Your task to perform on an android device: remove spam from my inbox in the gmail app Image 0: 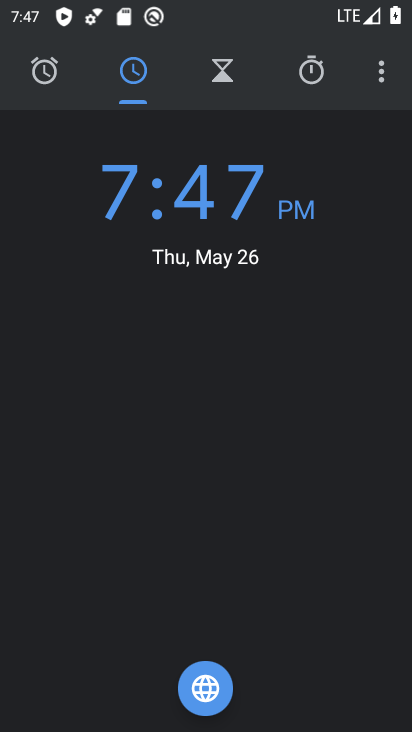
Step 0: press back button
Your task to perform on an android device: remove spam from my inbox in the gmail app Image 1: 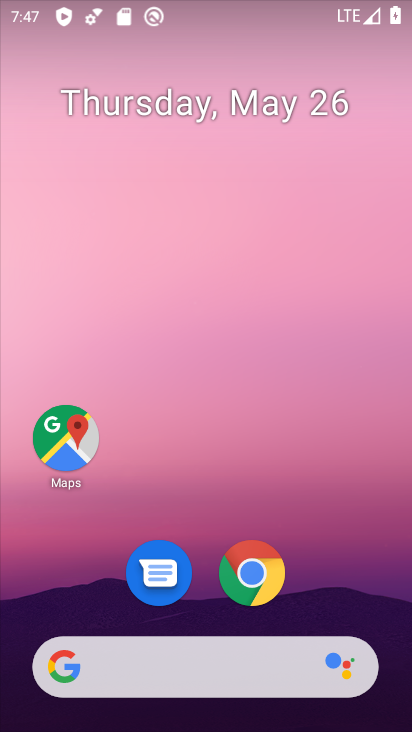
Step 1: drag from (342, 554) to (252, 27)
Your task to perform on an android device: remove spam from my inbox in the gmail app Image 2: 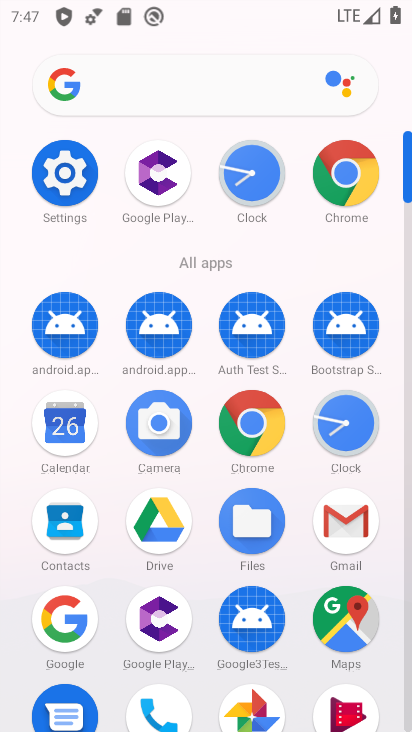
Step 2: drag from (18, 609) to (10, 294)
Your task to perform on an android device: remove spam from my inbox in the gmail app Image 3: 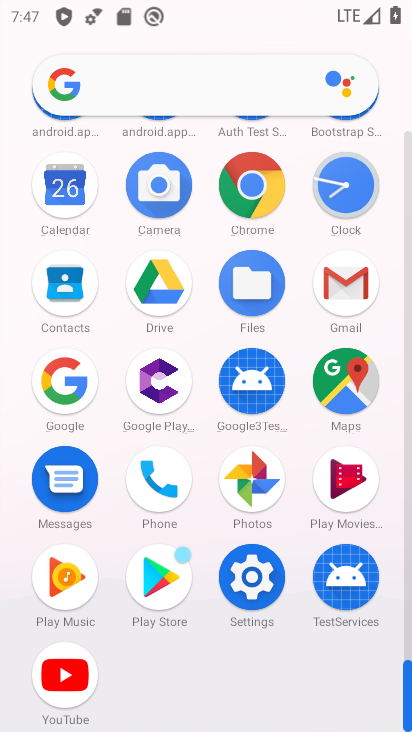
Step 3: click (344, 282)
Your task to perform on an android device: remove spam from my inbox in the gmail app Image 4: 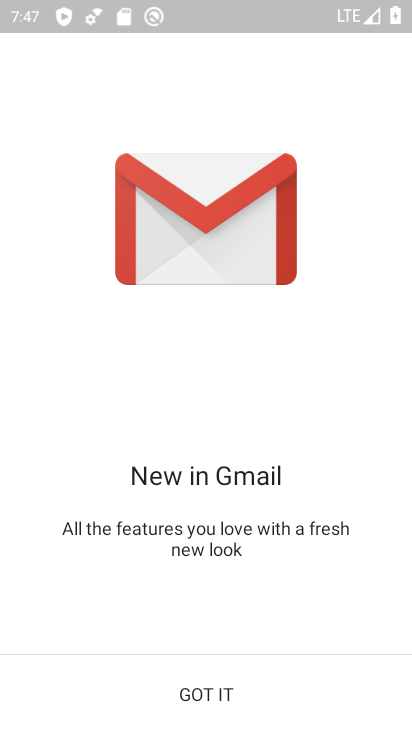
Step 4: click (200, 683)
Your task to perform on an android device: remove spam from my inbox in the gmail app Image 5: 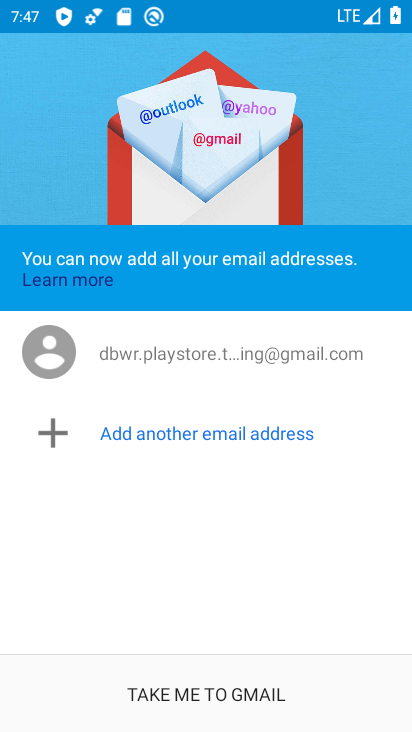
Step 5: click (212, 704)
Your task to perform on an android device: remove spam from my inbox in the gmail app Image 6: 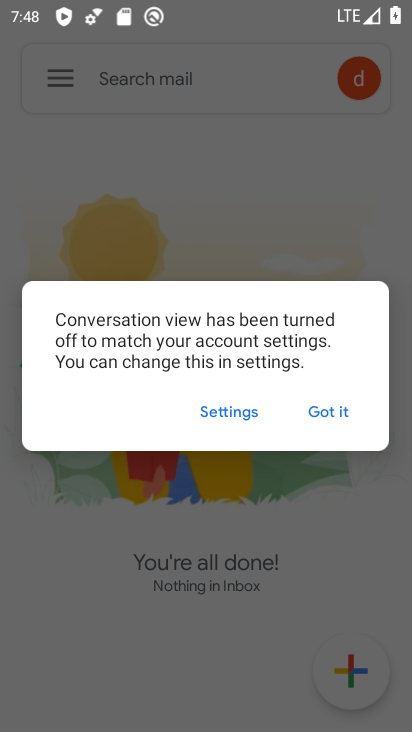
Step 6: click (326, 412)
Your task to perform on an android device: remove spam from my inbox in the gmail app Image 7: 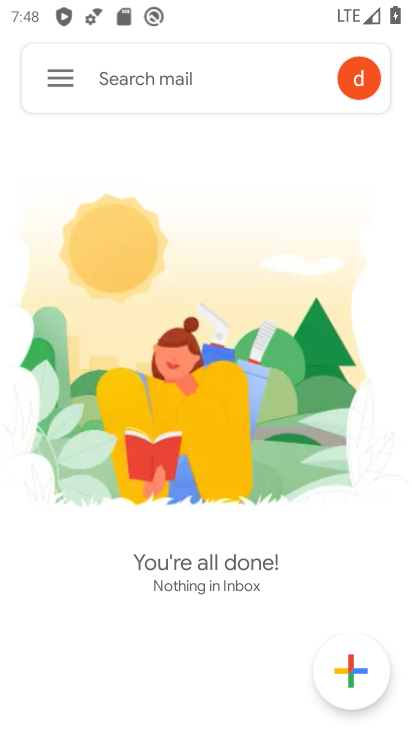
Step 7: click (45, 61)
Your task to perform on an android device: remove spam from my inbox in the gmail app Image 8: 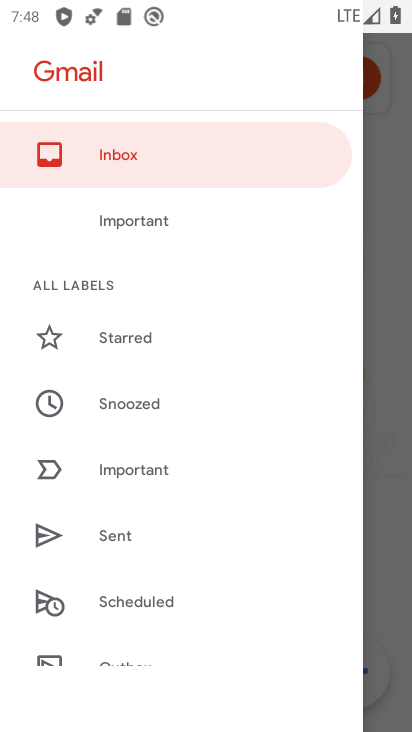
Step 8: drag from (181, 591) to (185, 290)
Your task to perform on an android device: remove spam from my inbox in the gmail app Image 9: 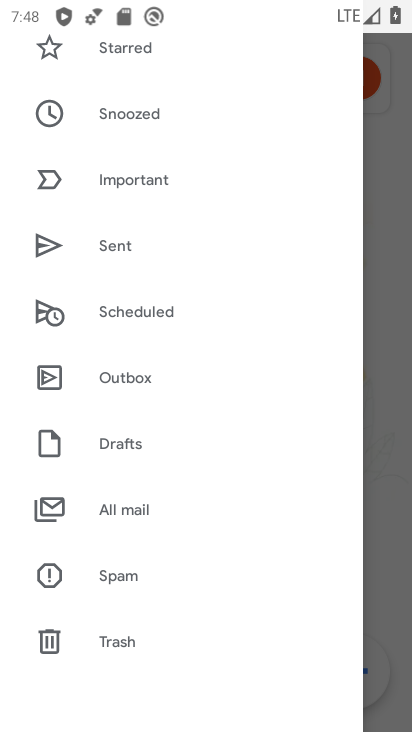
Step 9: click (146, 572)
Your task to perform on an android device: remove spam from my inbox in the gmail app Image 10: 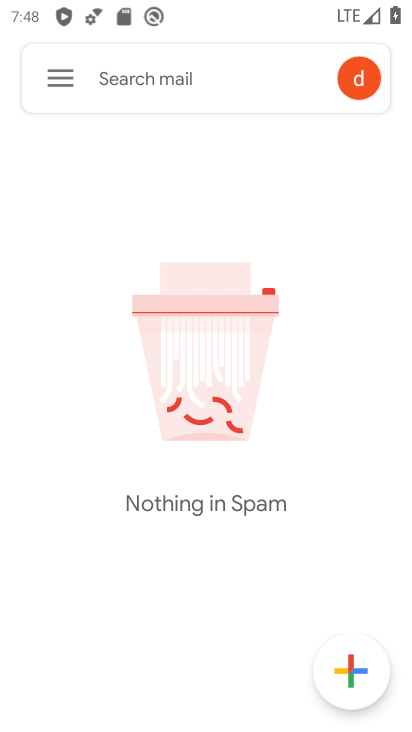
Step 10: task complete